Your task to perform on an android device: turn off improve location accuracy Image 0: 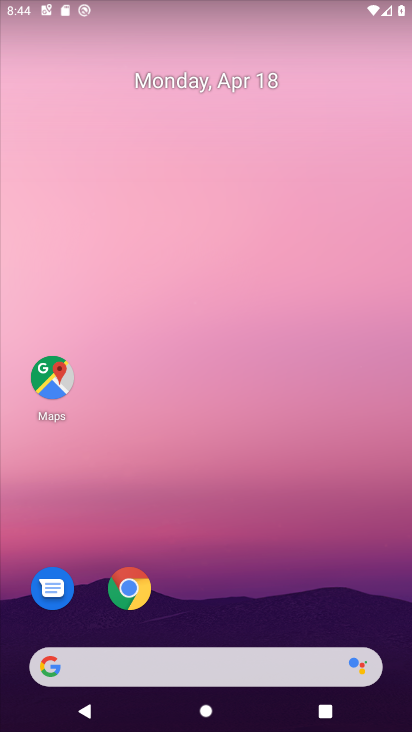
Step 0: drag from (31, 514) to (265, 39)
Your task to perform on an android device: turn off improve location accuracy Image 1: 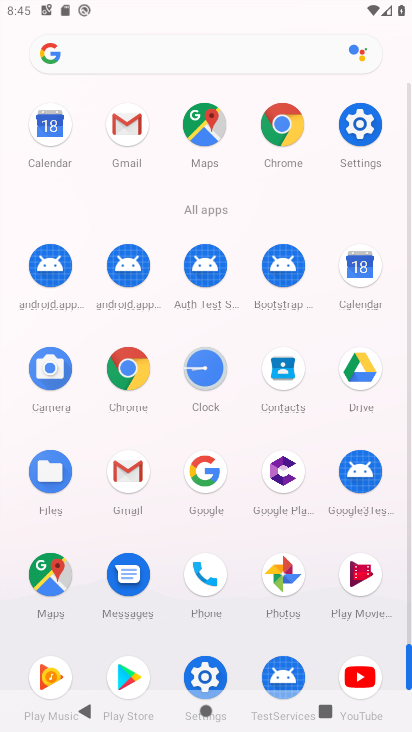
Step 1: click (356, 132)
Your task to perform on an android device: turn off improve location accuracy Image 2: 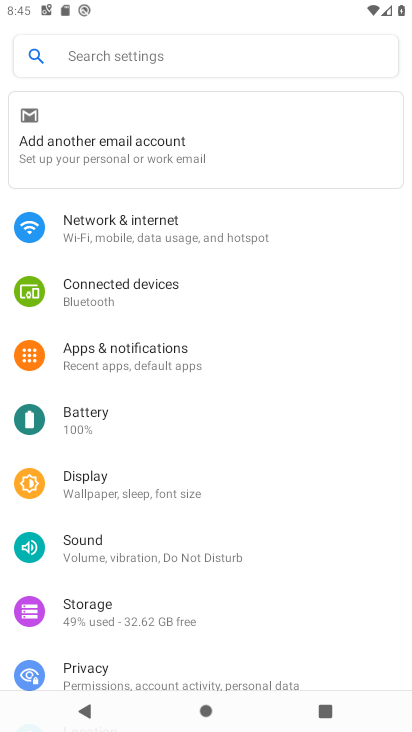
Step 2: drag from (108, 606) to (157, 299)
Your task to perform on an android device: turn off improve location accuracy Image 3: 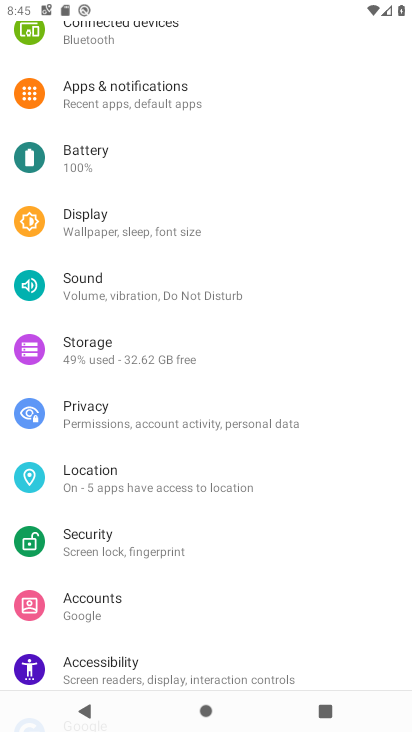
Step 3: click (140, 473)
Your task to perform on an android device: turn off improve location accuracy Image 4: 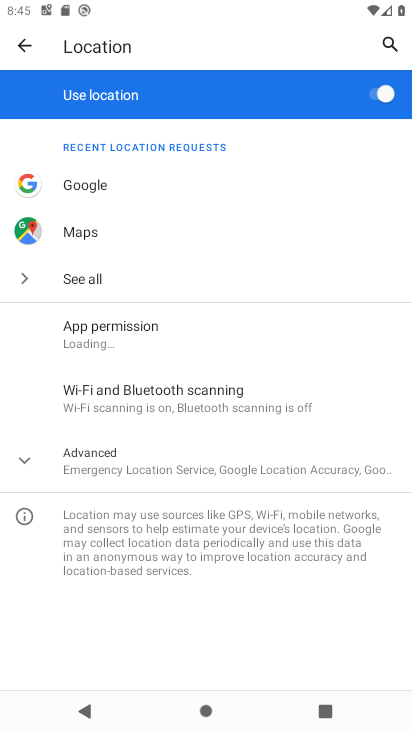
Step 4: click (140, 473)
Your task to perform on an android device: turn off improve location accuracy Image 5: 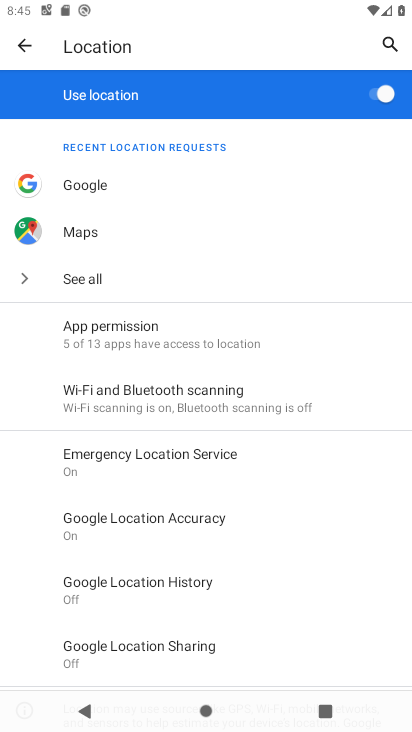
Step 5: click (251, 524)
Your task to perform on an android device: turn off improve location accuracy Image 6: 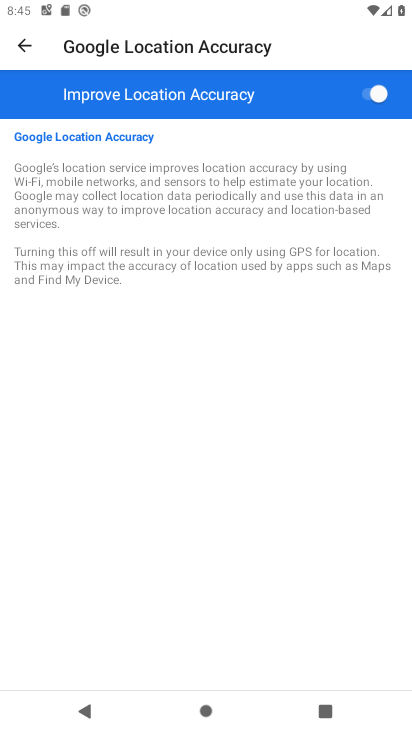
Step 6: click (326, 89)
Your task to perform on an android device: turn off improve location accuracy Image 7: 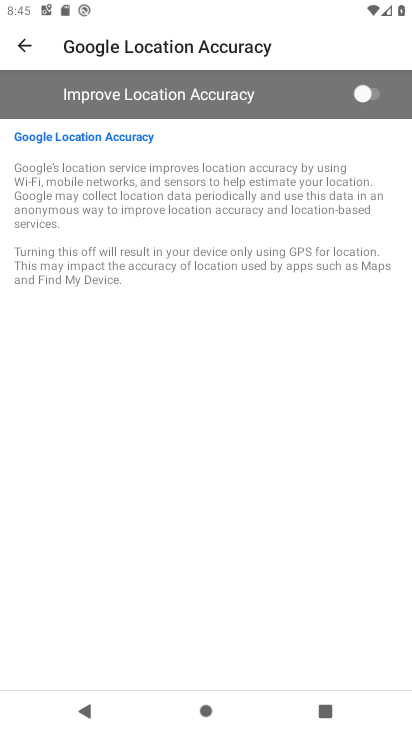
Step 7: task complete